Your task to perform on an android device: Go to Amazon Image 0: 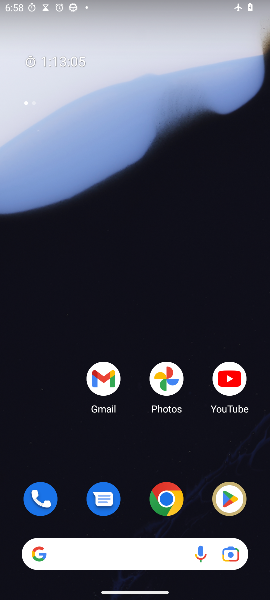
Step 0: drag from (72, 517) to (104, 65)
Your task to perform on an android device: Go to Amazon Image 1: 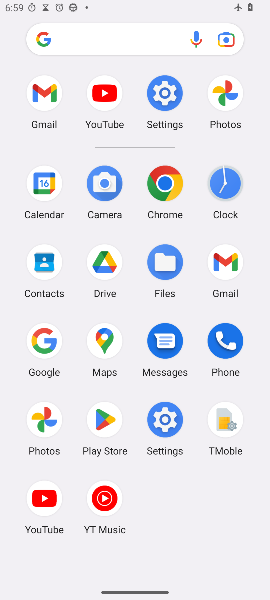
Step 1: click (151, 183)
Your task to perform on an android device: Go to Amazon Image 2: 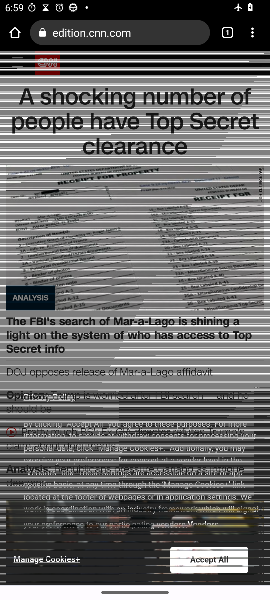
Step 2: click (138, 31)
Your task to perform on an android device: Go to Amazon Image 3: 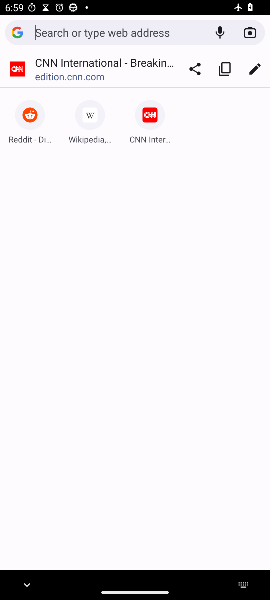
Step 3: type "Amazon"
Your task to perform on an android device: Go to Amazon Image 4: 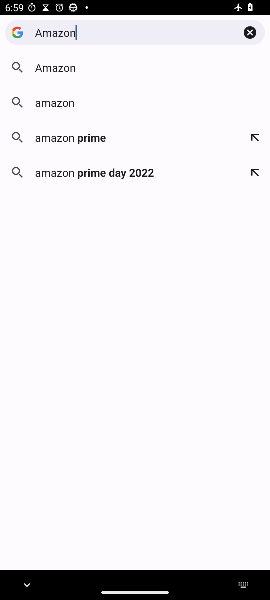
Step 4: click (48, 78)
Your task to perform on an android device: Go to Amazon Image 5: 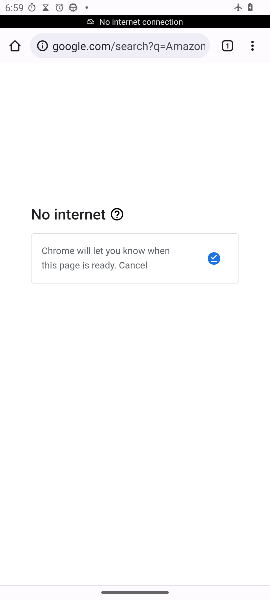
Step 5: task complete